Your task to perform on an android device: toggle sleep mode Image 0: 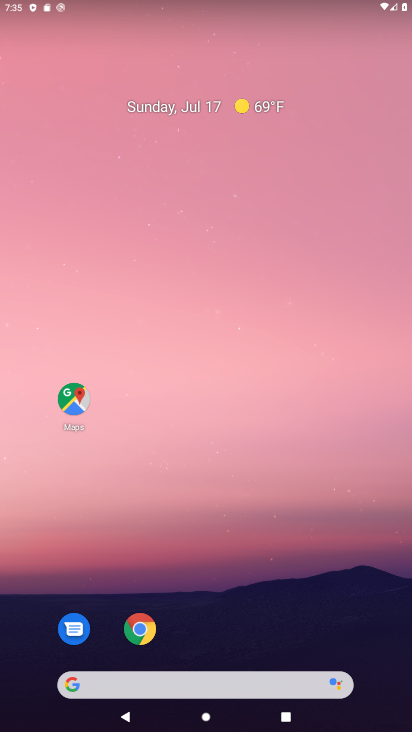
Step 0: drag from (194, 628) to (199, 331)
Your task to perform on an android device: toggle sleep mode Image 1: 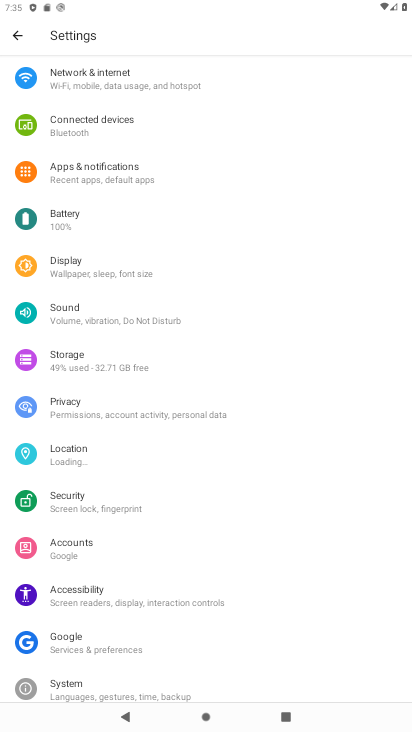
Step 1: click (129, 281)
Your task to perform on an android device: toggle sleep mode Image 2: 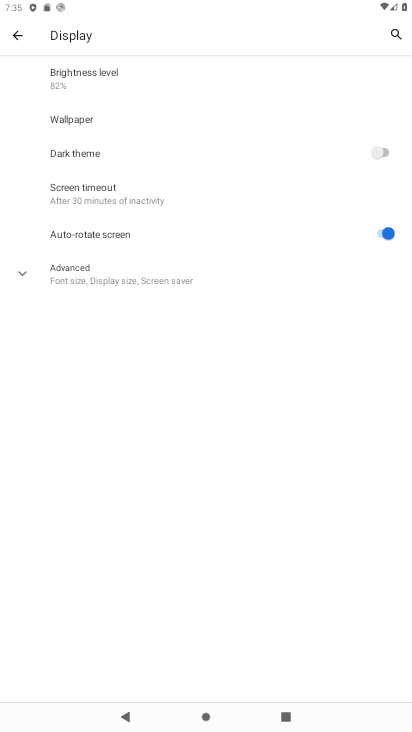
Step 2: click (62, 194)
Your task to perform on an android device: toggle sleep mode Image 3: 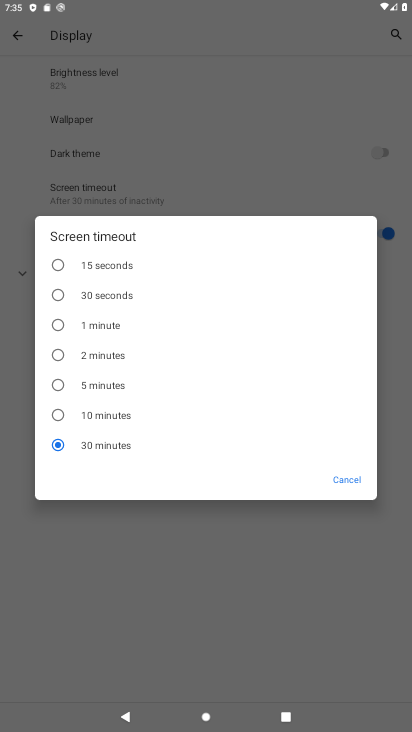
Step 3: click (62, 291)
Your task to perform on an android device: toggle sleep mode Image 4: 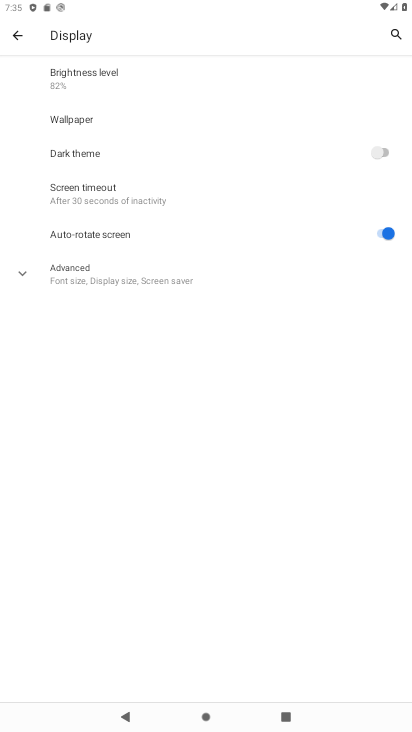
Step 4: task complete